Your task to perform on an android device: turn off picture-in-picture Image 0: 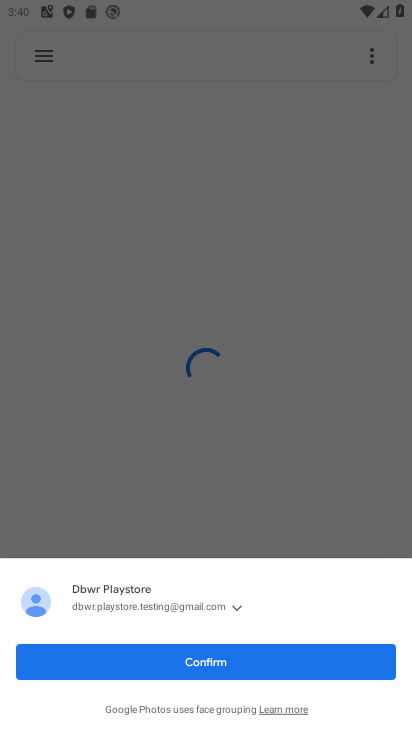
Step 0: press home button
Your task to perform on an android device: turn off picture-in-picture Image 1: 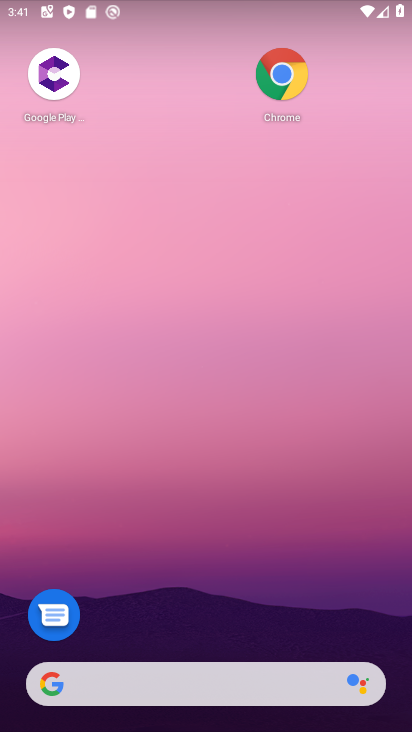
Step 1: drag from (143, 646) to (229, 154)
Your task to perform on an android device: turn off picture-in-picture Image 2: 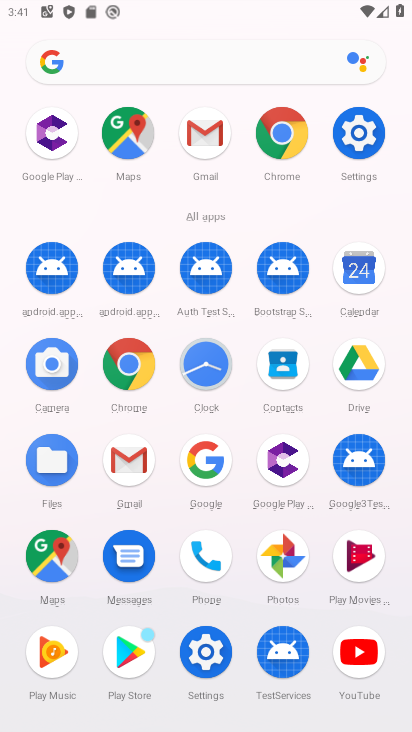
Step 2: drag from (131, 651) to (189, 375)
Your task to perform on an android device: turn off picture-in-picture Image 3: 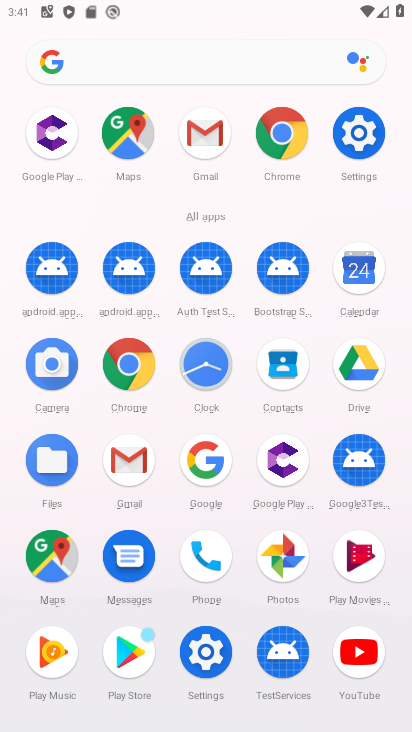
Step 3: click (201, 653)
Your task to perform on an android device: turn off picture-in-picture Image 4: 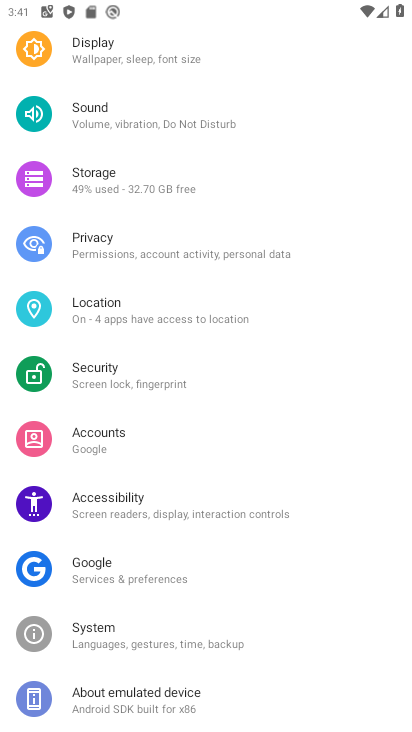
Step 4: drag from (151, 626) to (202, 725)
Your task to perform on an android device: turn off picture-in-picture Image 5: 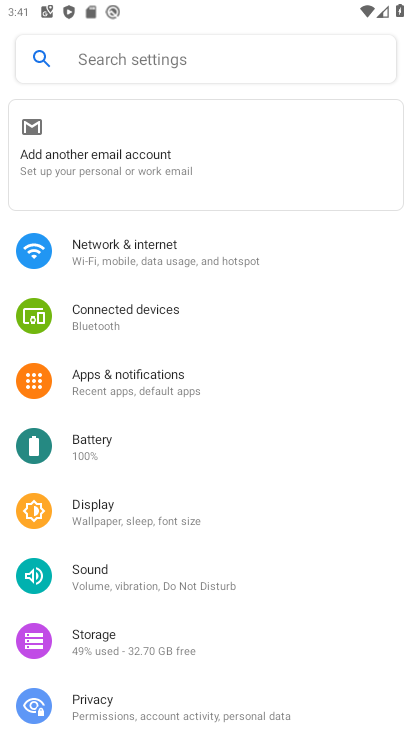
Step 5: drag from (227, 330) to (262, 239)
Your task to perform on an android device: turn off picture-in-picture Image 6: 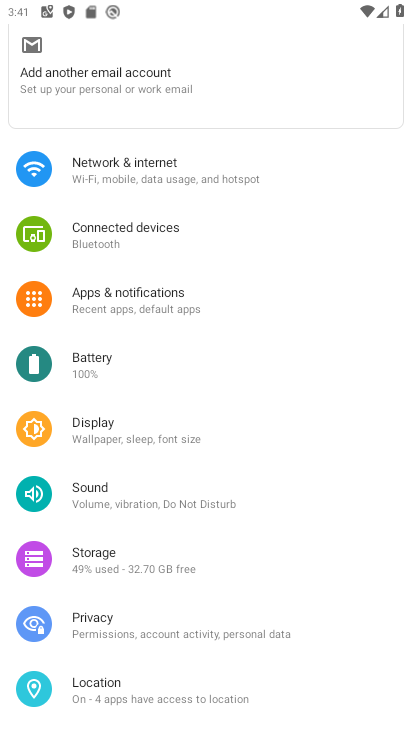
Step 6: click (152, 306)
Your task to perform on an android device: turn off picture-in-picture Image 7: 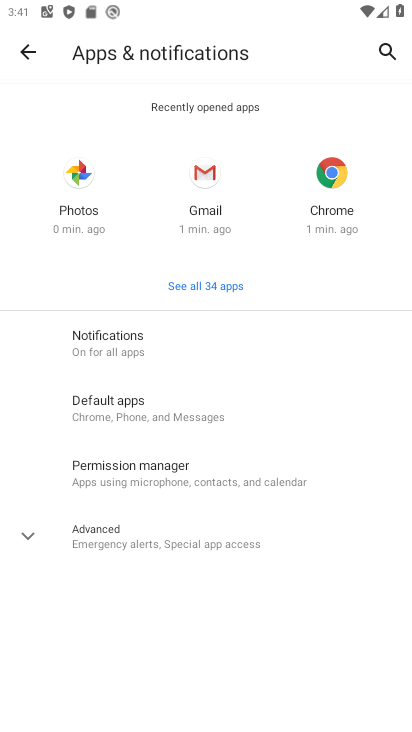
Step 7: click (177, 540)
Your task to perform on an android device: turn off picture-in-picture Image 8: 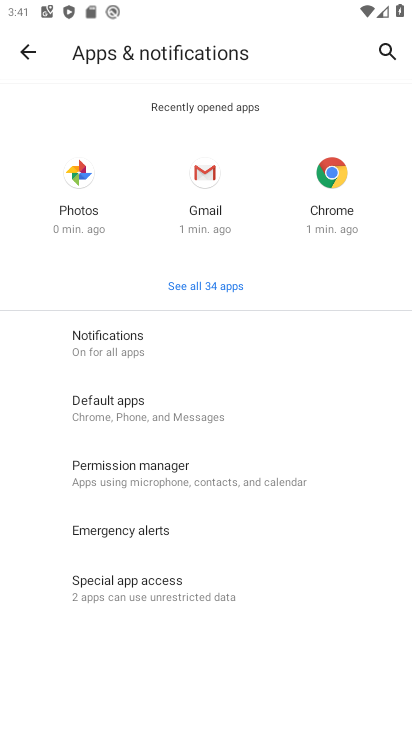
Step 8: click (162, 595)
Your task to perform on an android device: turn off picture-in-picture Image 9: 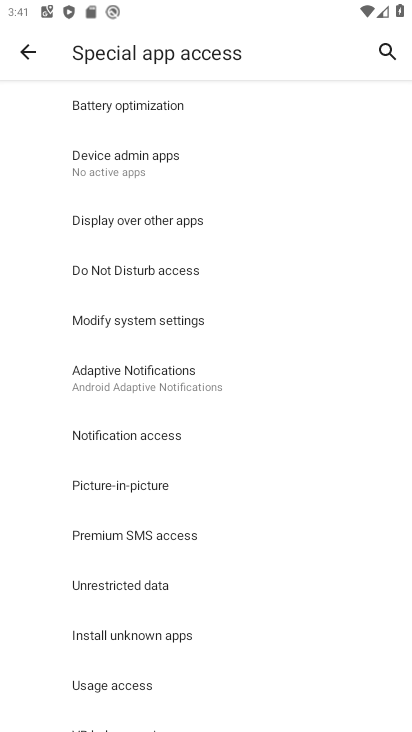
Step 9: click (197, 494)
Your task to perform on an android device: turn off picture-in-picture Image 10: 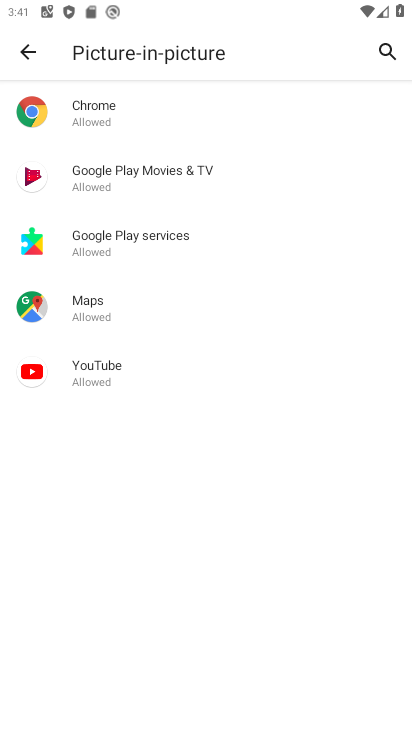
Step 10: click (228, 119)
Your task to perform on an android device: turn off picture-in-picture Image 11: 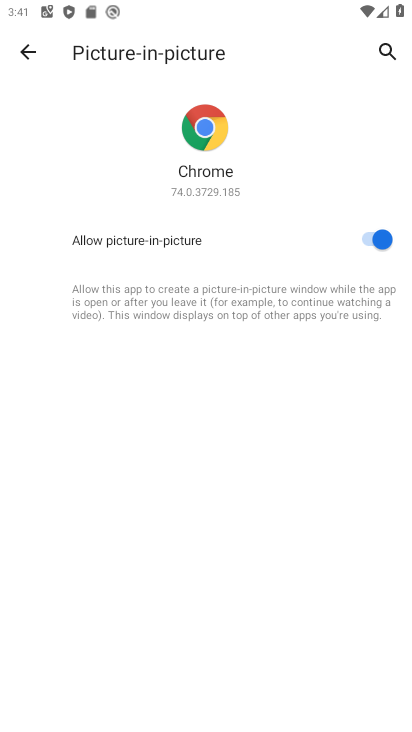
Step 11: click (362, 241)
Your task to perform on an android device: turn off picture-in-picture Image 12: 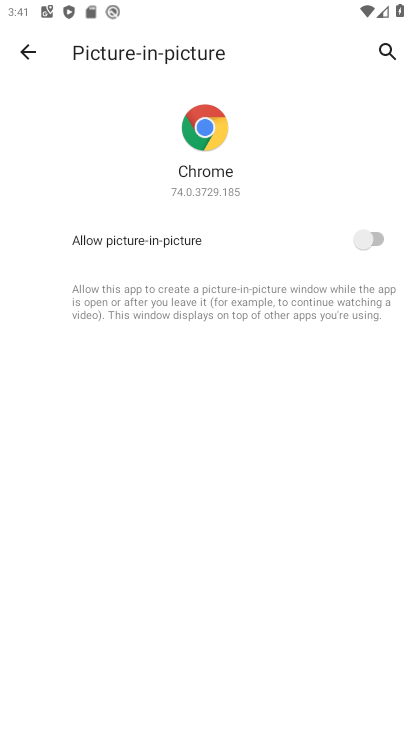
Step 12: press back button
Your task to perform on an android device: turn off picture-in-picture Image 13: 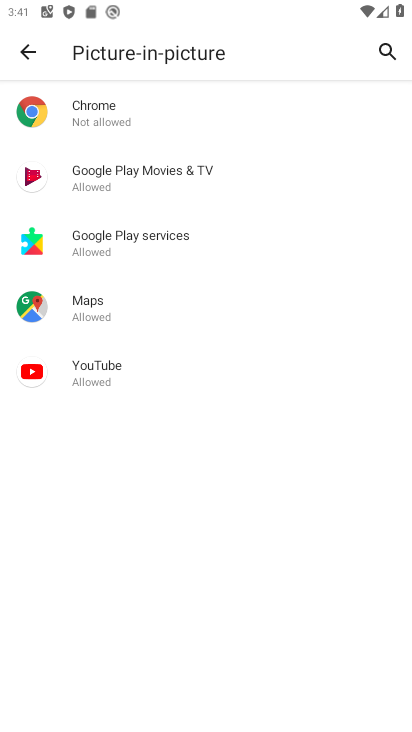
Step 13: click (204, 166)
Your task to perform on an android device: turn off picture-in-picture Image 14: 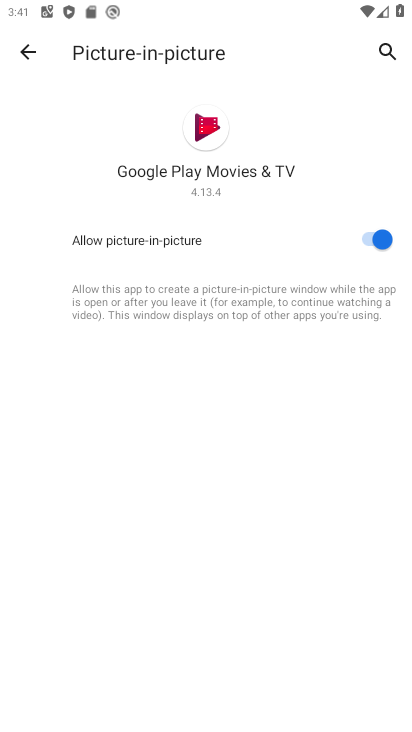
Step 14: click (367, 238)
Your task to perform on an android device: turn off picture-in-picture Image 15: 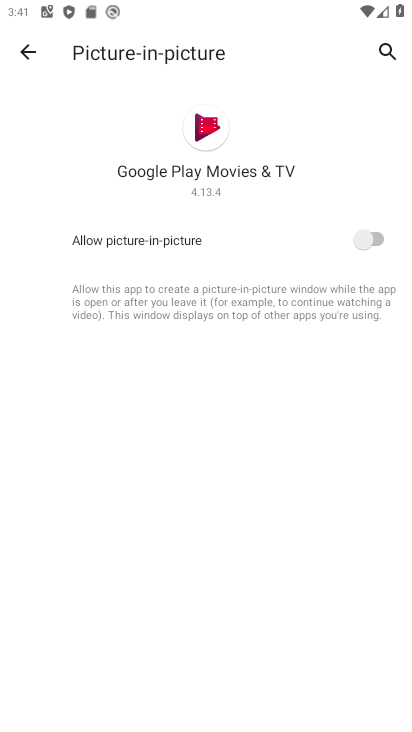
Step 15: press back button
Your task to perform on an android device: turn off picture-in-picture Image 16: 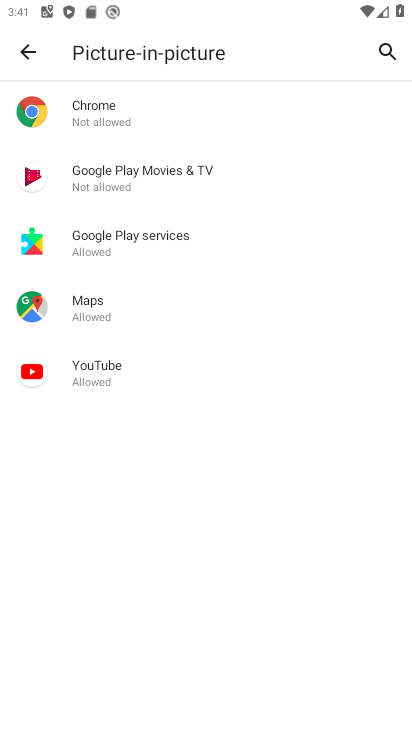
Step 16: click (144, 261)
Your task to perform on an android device: turn off picture-in-picture Image 17: 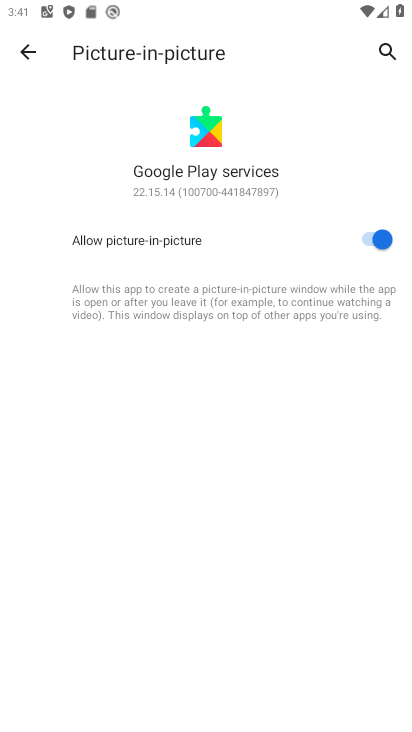
Step 17: click (357, 244)
Your task to perform on an android device: turn off picture-in-picture Image 18: 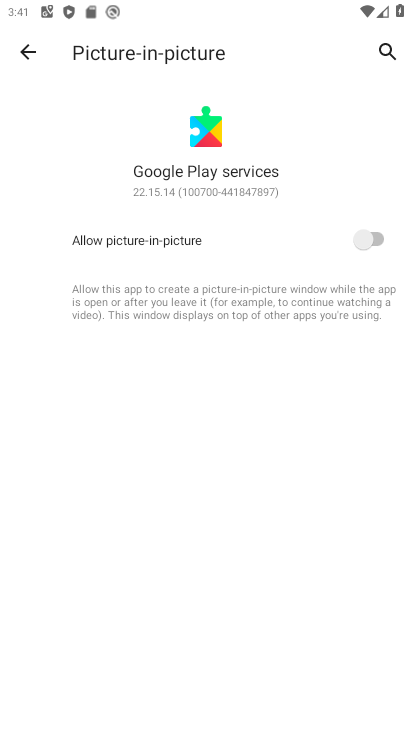
Step 18: press back button
Your task to perform on an android device: turn off picture-in-picture Image 19: 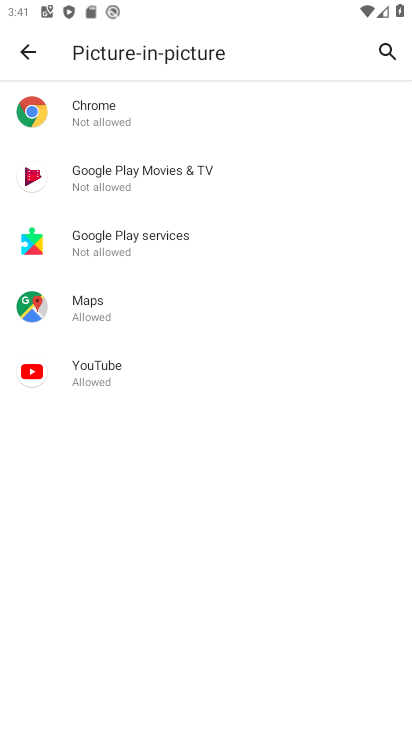
Step 19: click (114, 298)
Your task to perform on an android device: turn off picture-in-picture Image 20: 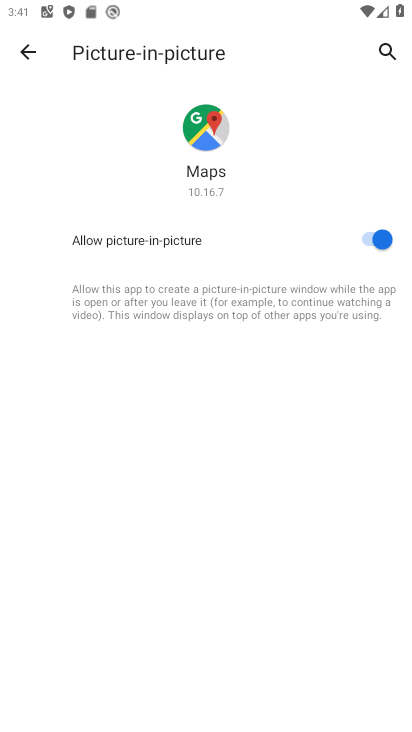
Step 20: click (360, 239)
Your task to perform on an android device: turn off picture-in-picture Image 21: 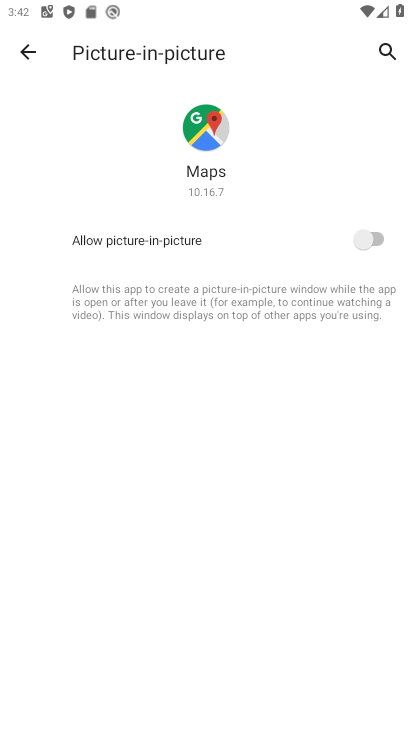
Step 21: press back button
Your task to perform on an android device: turn off picture-in-picture Image 22: 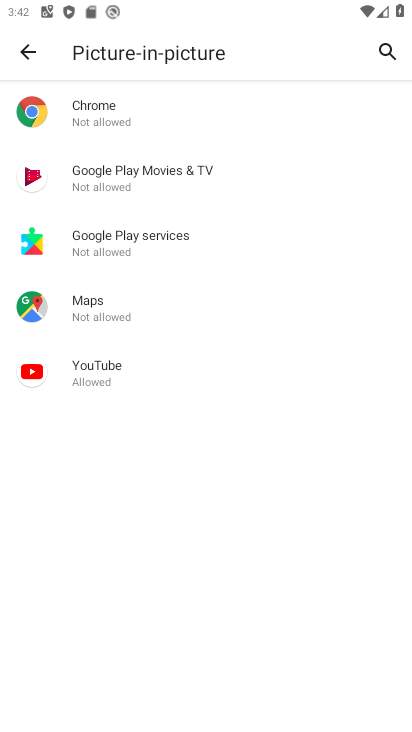
Step 22: click (169, 360)
Your task to perform on an android device: turn off picture-in-picture Image 23: 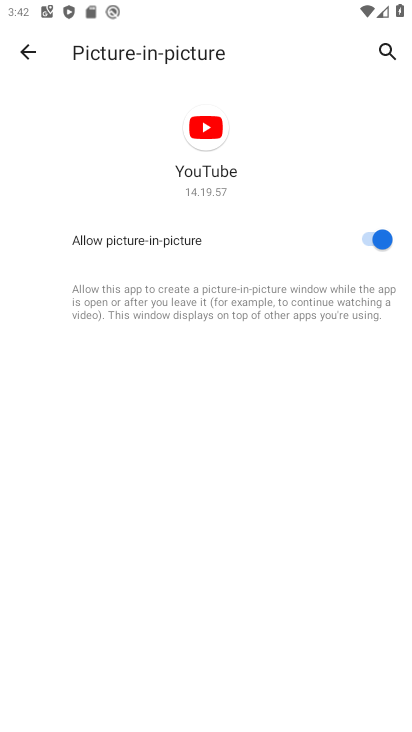
Step 23: click (377, 246)
Your task to perform on an android device: turn off picture-in-picture Image 24: 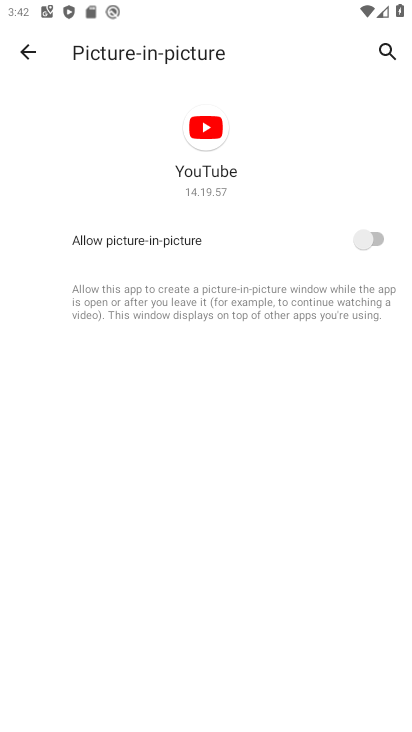
Step 24: task complete